Your task to perform on an android device: Search for pizza restaurants on Maps Image 0: 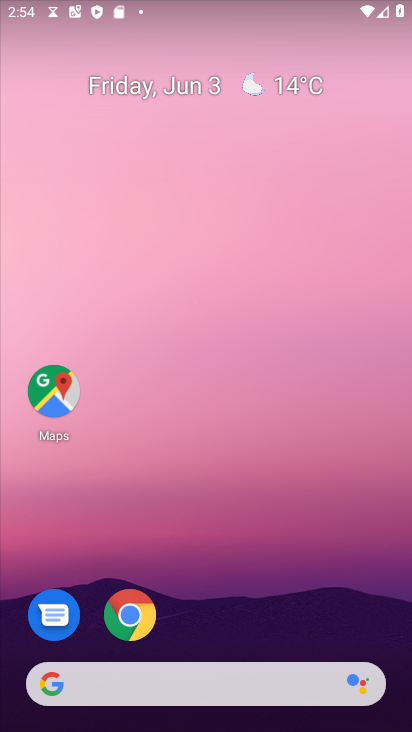
Step 0: press home button
Your task to perform on an android device: Search for pizza restaurants on Maps Image 1: 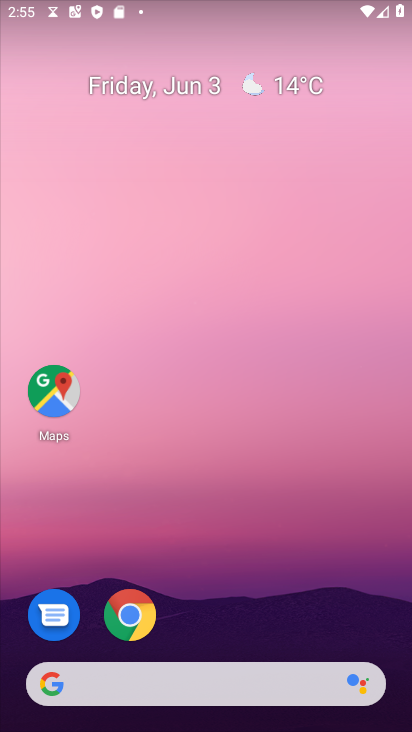
Step 1: click (56, 412)
Your task to perform on an android device: Search for pizza restaurants on Maps Image 2: 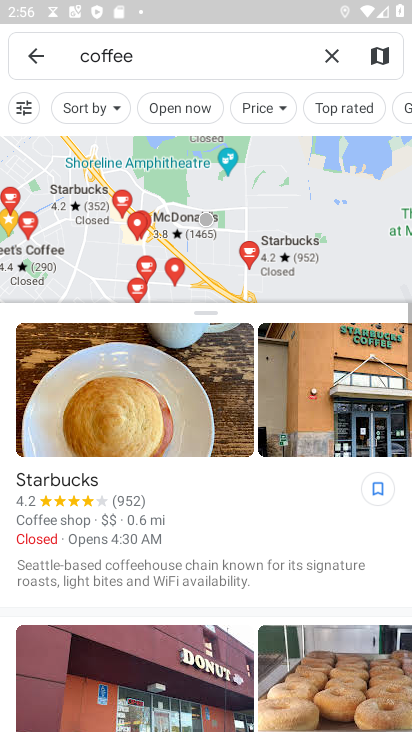
Step 2: click (332, 58)
Your task to perform on an android device: Search for pizza restaurants on Maps Image 3: 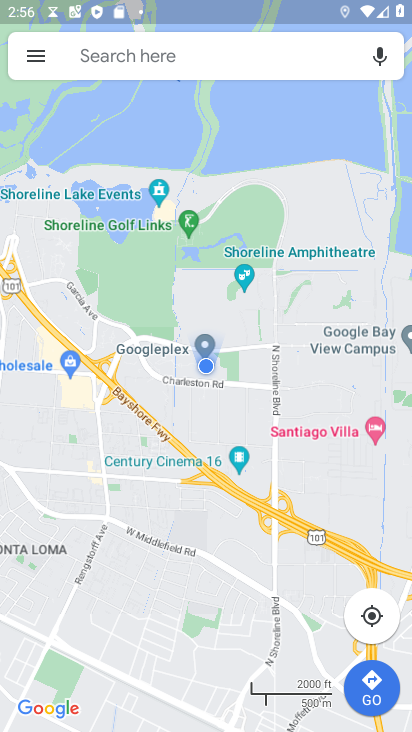
Step 3: click (105, 54)
Your task to perform on an android device: Search for pizza restaurants on Maps Image 4: 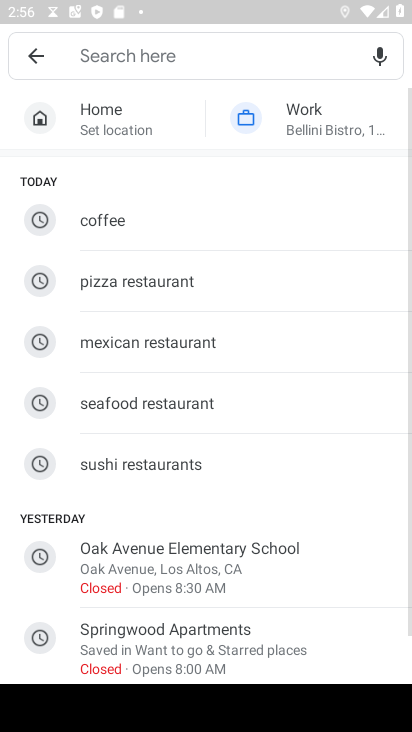
Step 4: click (130, 284)
Your task to perform on an android device: Search for pizza restaurants on Maps Image 5: 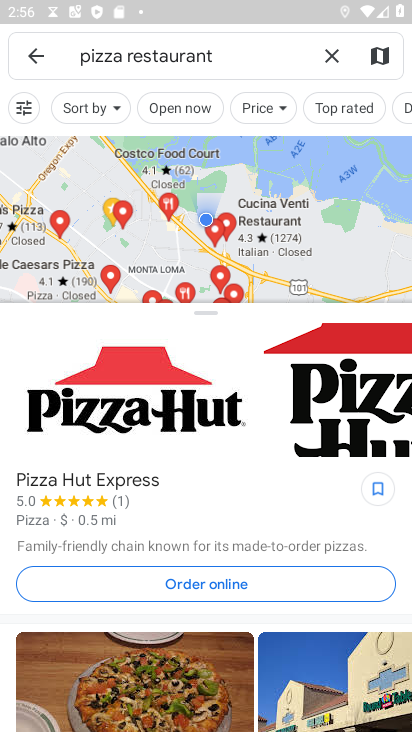
Step 5: task complete